Your task to perform on an android device: Search for "lenovo thinkpad" on ebay.com, select the first entry, add it to the cart, then select checkout. Image 0: 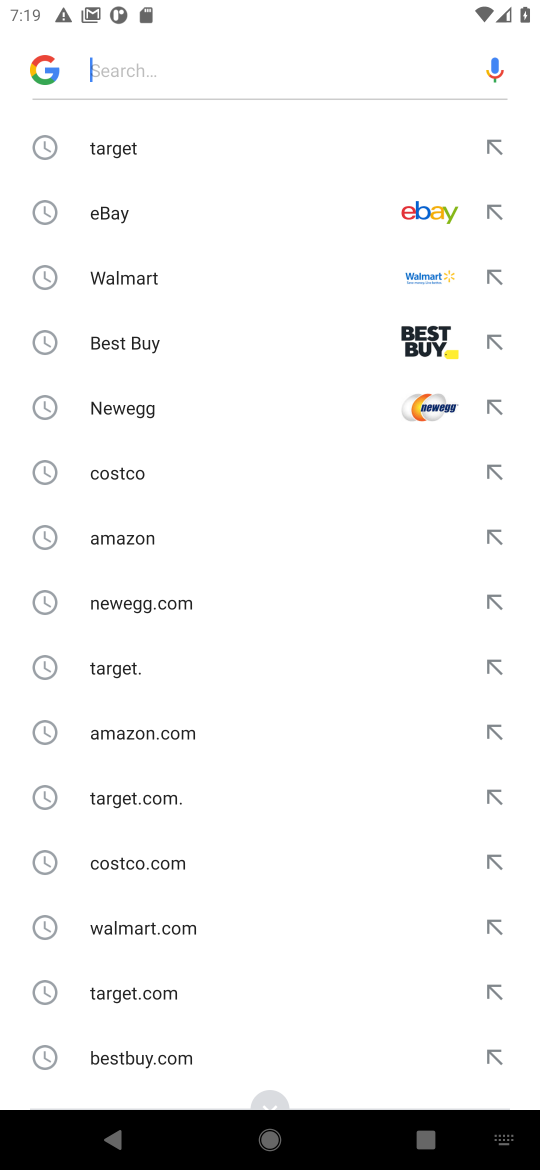
Step 0: press home button
Your task to perform on an android device: Search for "lenovo thinkpad" on ebay.com, select the first entry, add it to the cart, then select checkout. Image 1: 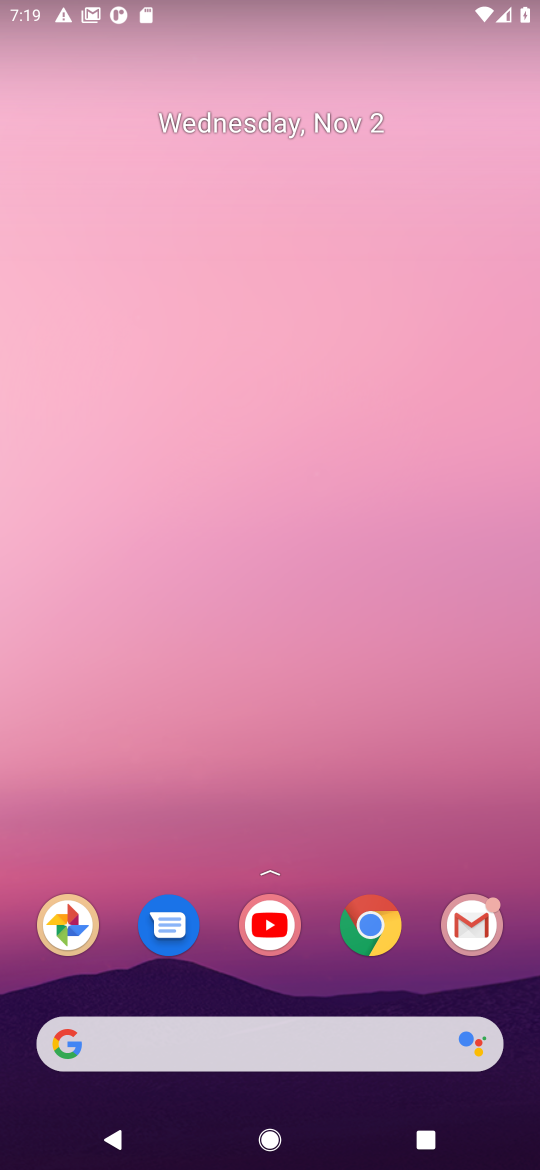
Step 1: click (115, 1038)
Your task to perform on an android device: Search for "lenovo thinkpad" on ebay.com, select the first entry, add it to the cart, then select checkout. Image 2: 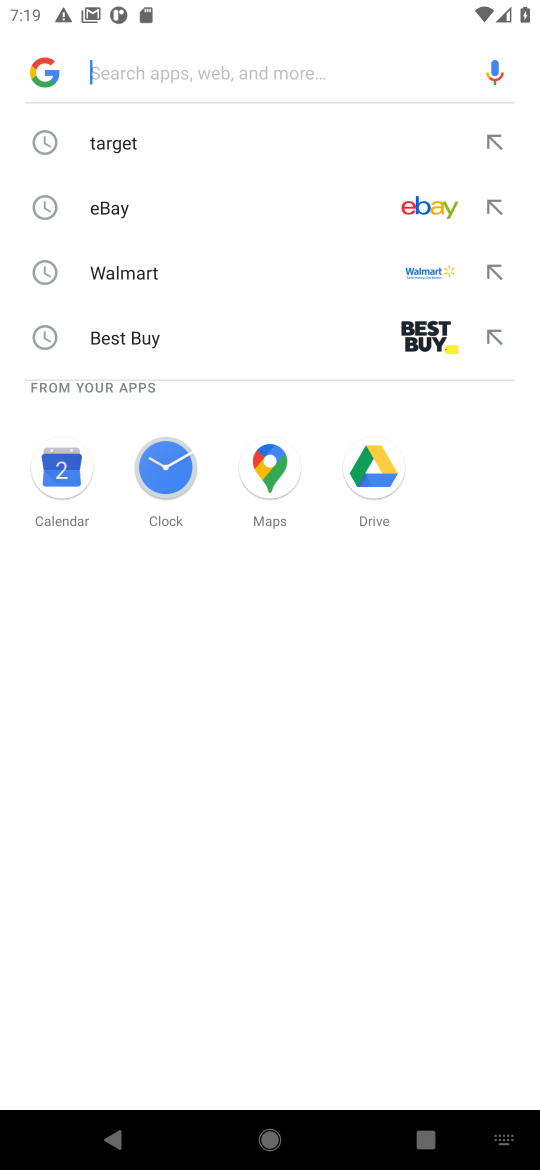
Step 2: type "ebay.com"
Your task to perform on an android device: Search for "lenovo thinkpad" on ebay.com, select the first entry, add it to the cart, then select checkout. Image 3: 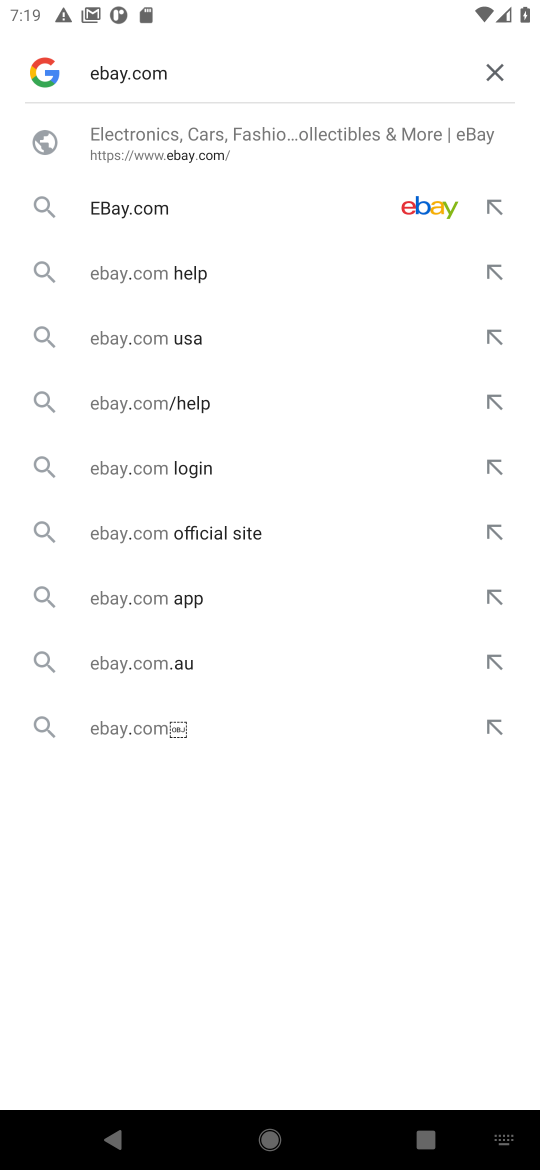
Step 3: press enter
Your task to perform on an android device: Search for "lenovo thinkpad" on ebay.com, select the first entry, add it to the cart, then select checkout. Image 4: 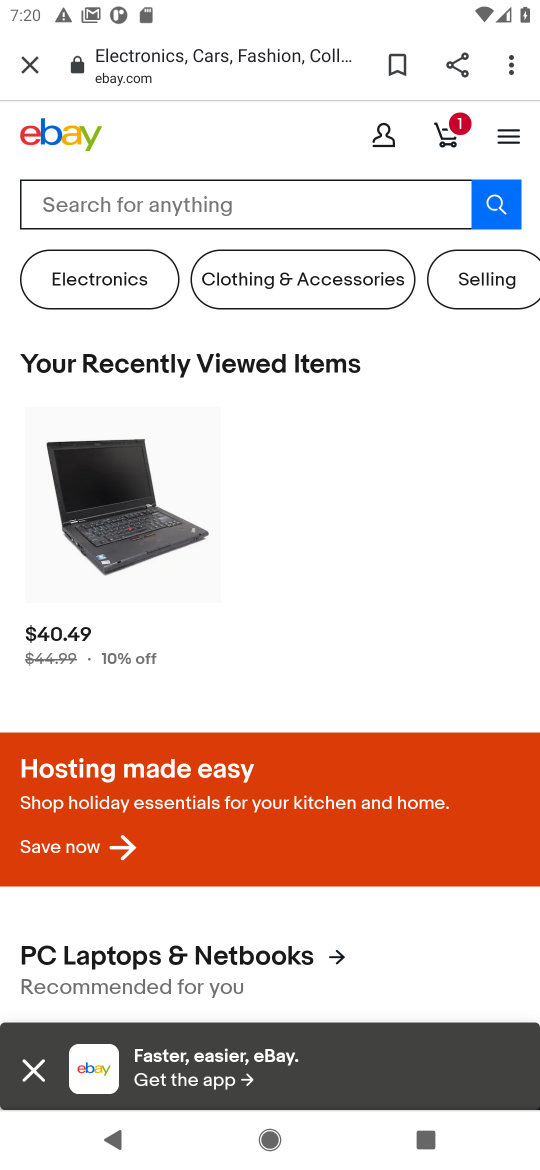
Step 4: click (80, 201)
Your task to perform on an android device: Search for "lenovo thinkpad" on ebay.com, select the first entry, add it to the cart, then select checkout. Image 5: 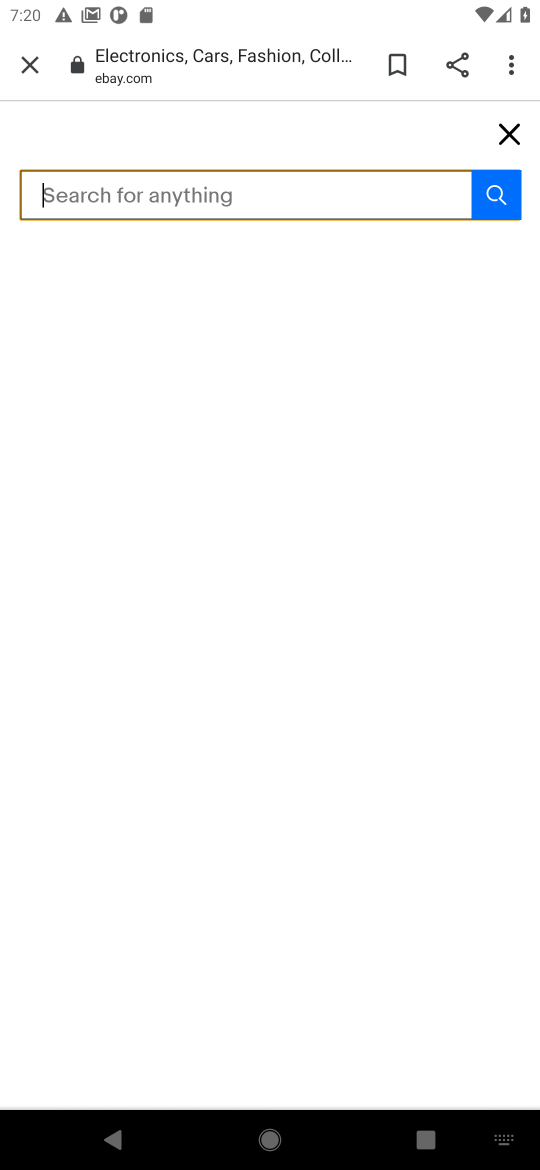
Step 5: type "lenovo thinkpad"
Your task to perform on an android device: Search for "lenovo thinkpad" on ebay.com, select the first entry, add it to the cart, then select checkout. Image 6: 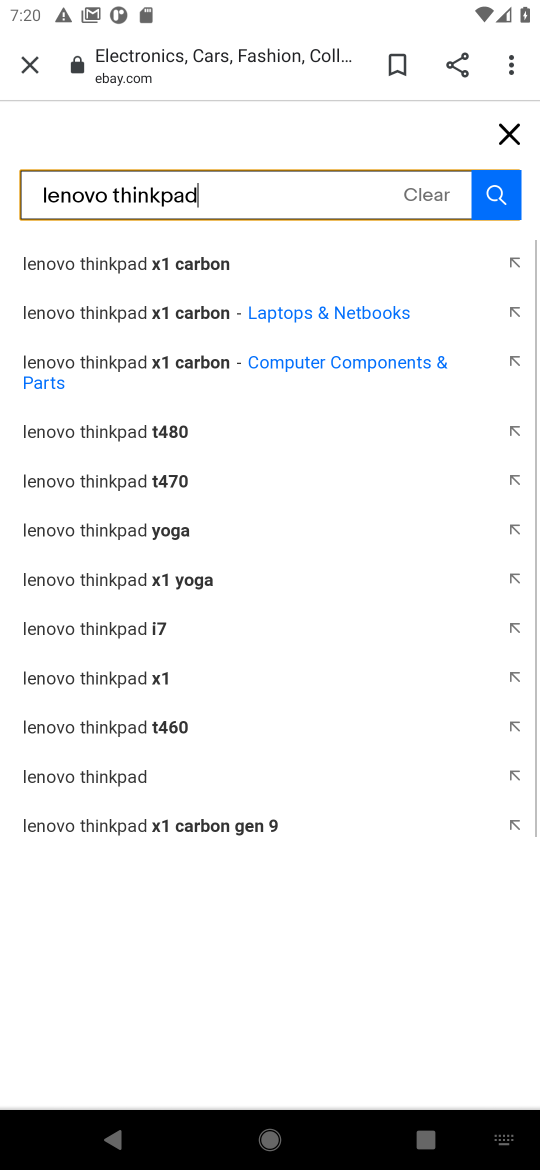
Step 6: press enter
Your task to perform on an android device: Search for "lenovo thinkpad" on ebay.com, select the first entry, add it to the cart, then select checkout. Image 7: 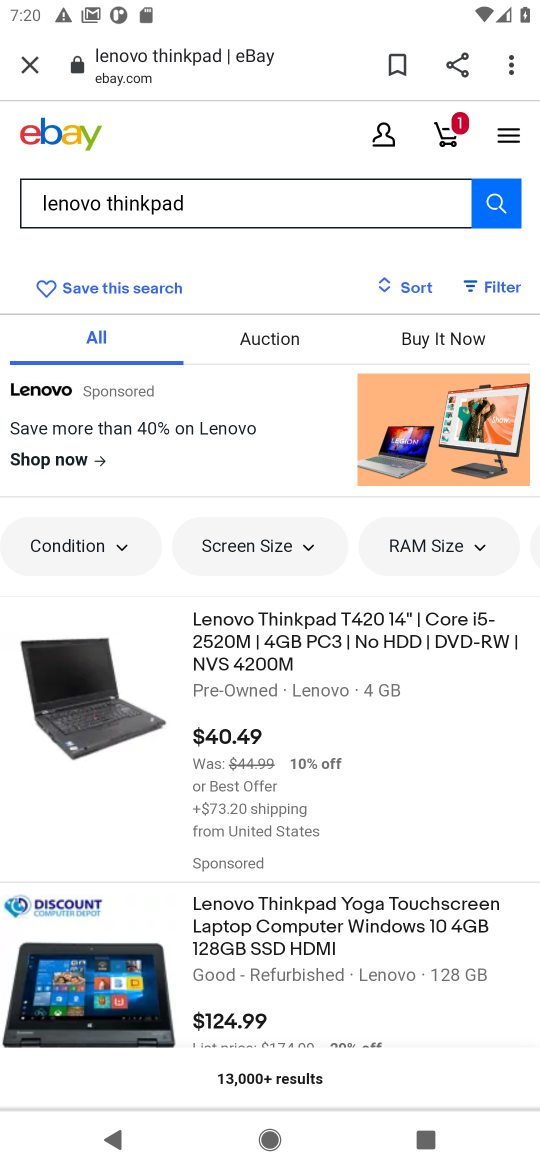
Step 7: click (258, 634)
Your task to perform on an android device: Search for "lenovo thinkpad" on ebay.com, select the first entry, add it to the cart, then select checkout. Image 8: 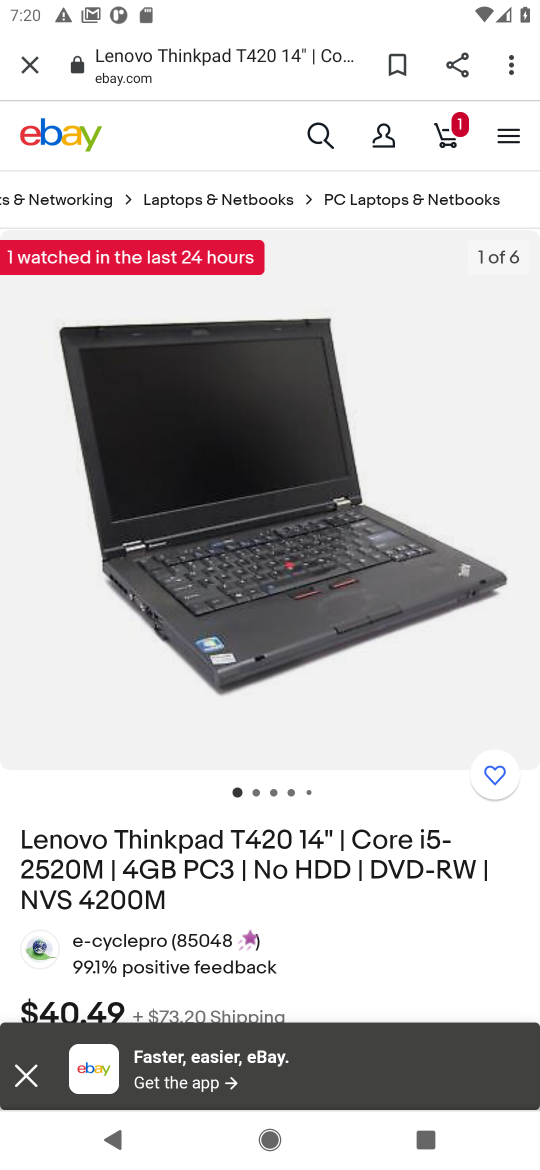
Step 8: drag from (352, 935) to (417, 466)
Your task to perform on an android device: Search for "lenovo thinkpad" on ebay.com, select the first entry, add it to the cart, then select checkout. Image 9: 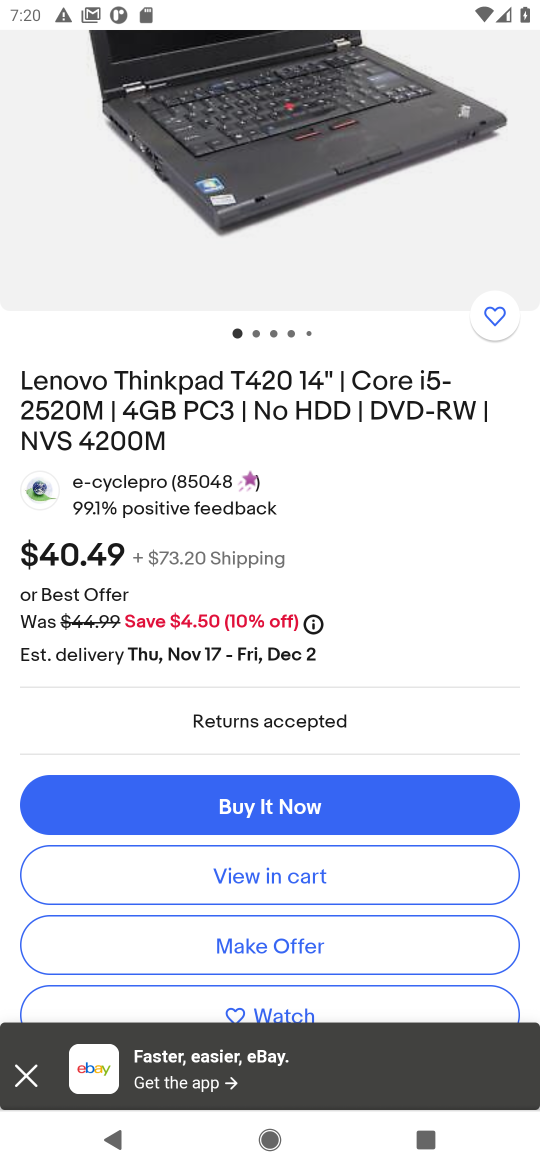
Step 9: drag from (399, 881) to (417, 521)
Your task to perform on an android device: Search for "lenovo thinkpad" on ebay.com, select the first entry, add it to the cart, then select checkout. Image 10: 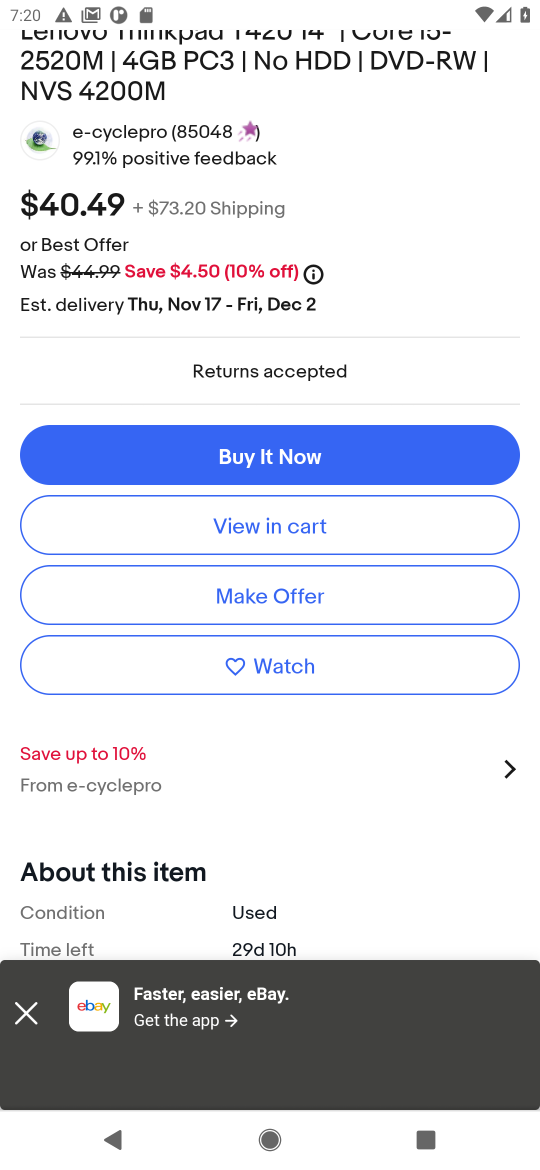
Step 10: click (259, 525)
Your task to perform on an android device: Search for "lenovo thinkpad" on ebay.com, select the first entry, add it to the cart, then select checkout. Image 11: 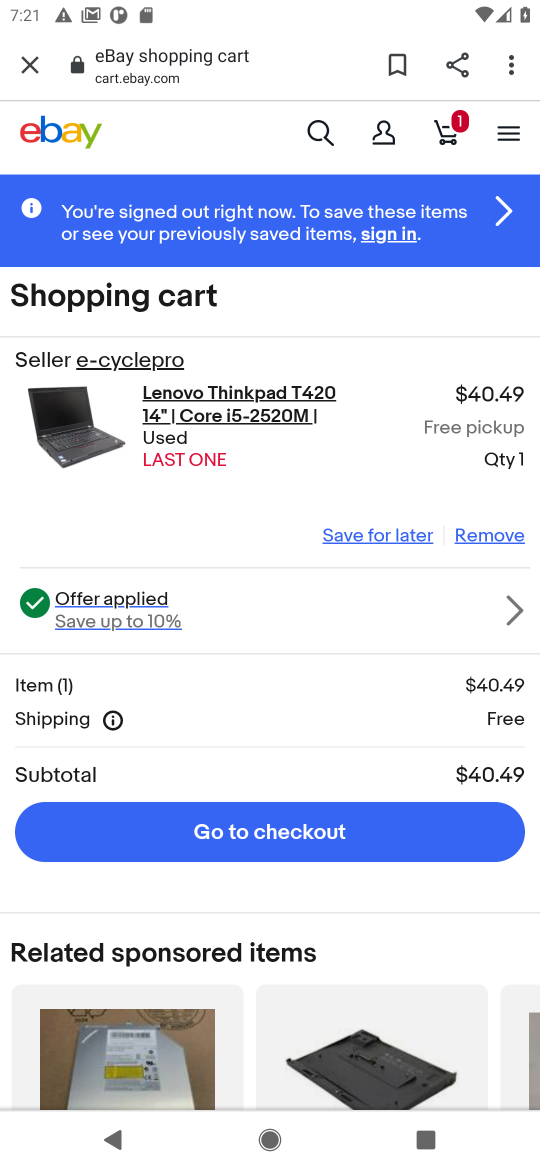
Step 11: click (235, 831)
Your task to perform on an android device: Search for "lenovo thinkpad" on ebay.com, select the first entry, add it to the cart, then select checkout. Image 12: 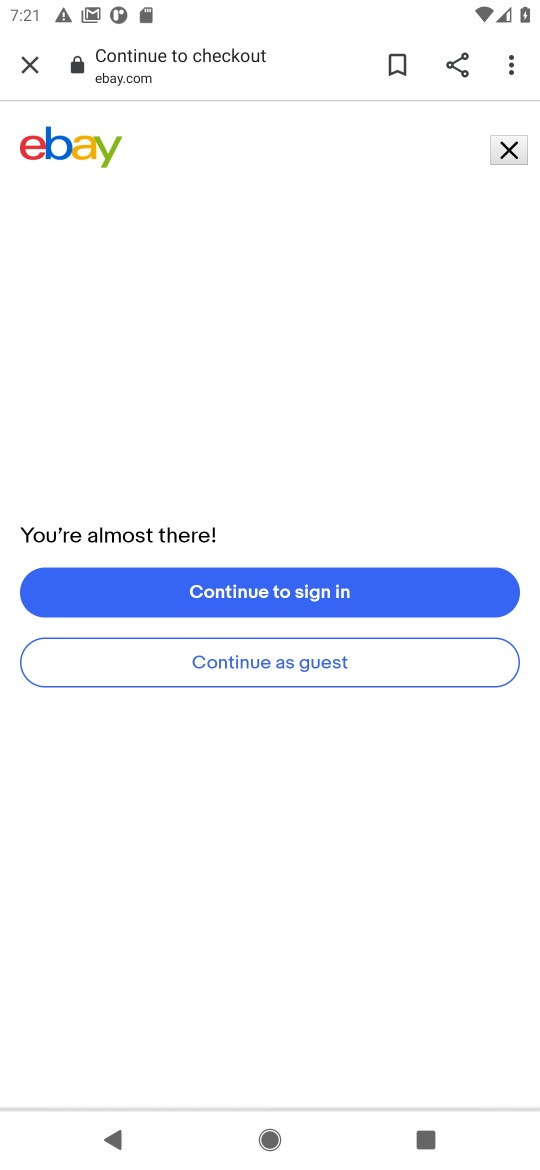
Step 12: task complete